Your task to perform on an android device: change keyboard looks Image 0: 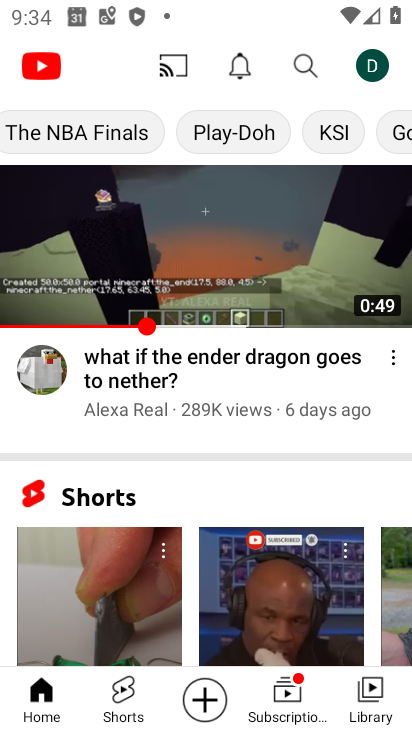
Step 0: press home button
Your task to perform on an android device: change keyboard looks Image 1: 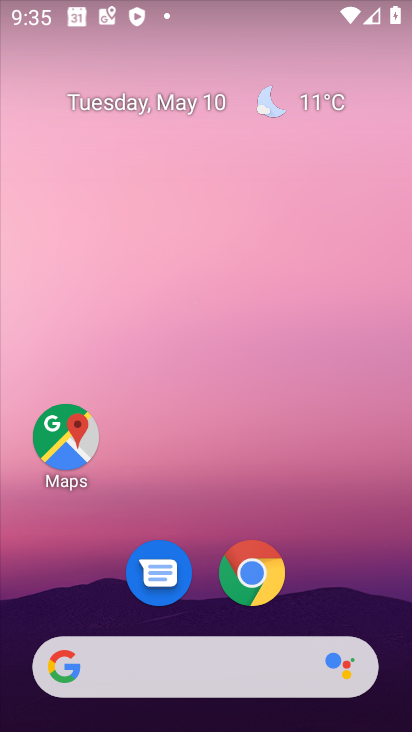
Step 1: drag from (349, 619) to (353, 1)
Your task to perform on an android device: change keyboard looks Image 2: 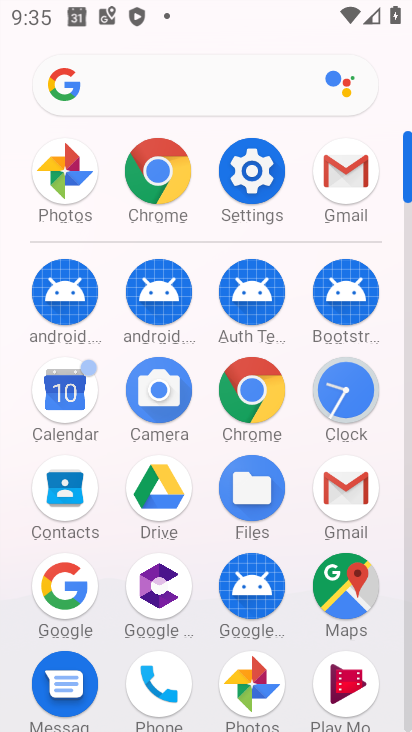
Step 2: click (247, 173)
Your task to perform on an android device: change keyboard looks Image 3: 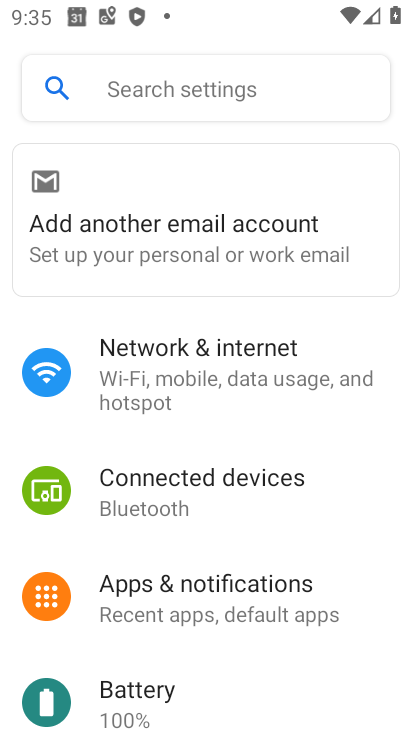
Step 3: drag from (317, 285) to (317, 204)
Your task to perform on an android device: change keyboard looks Image 4: 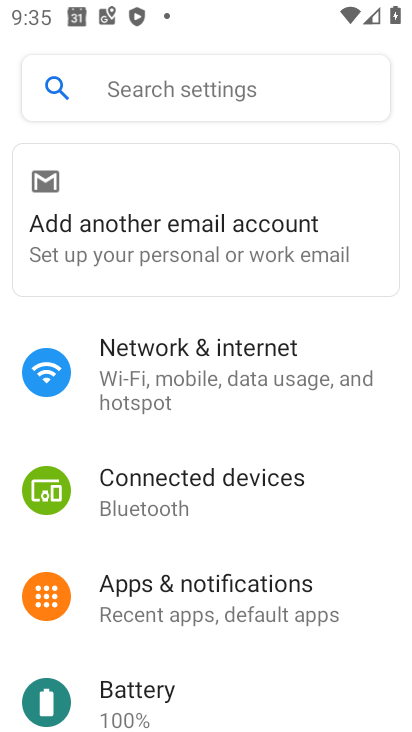
Step 4: drag from (325, 303) to (325, 154)
Your task to perform on an android device: change keyboard looks Image 5: 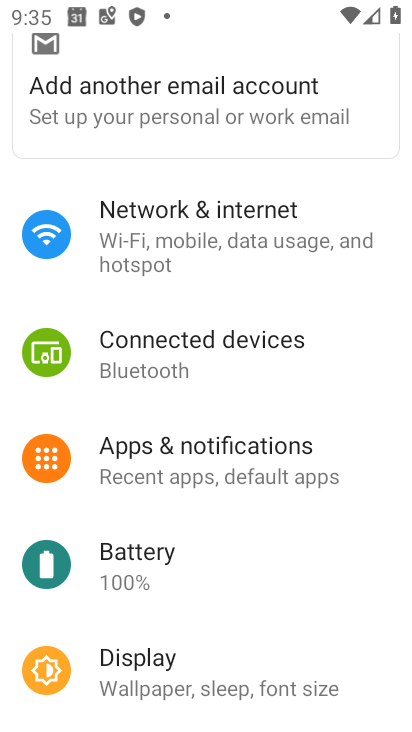
Step 5: drag from (305, 600) to (293, 196)
Your task to perform on an android device: change keyboard looks Image 6: 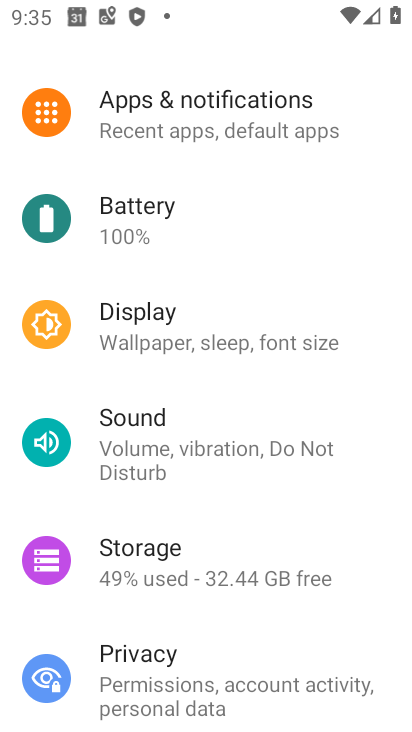
Step 6: drag from (269, 581) to (269, 156)
Your task to perform on an android device: change keyboard looks Image 7: 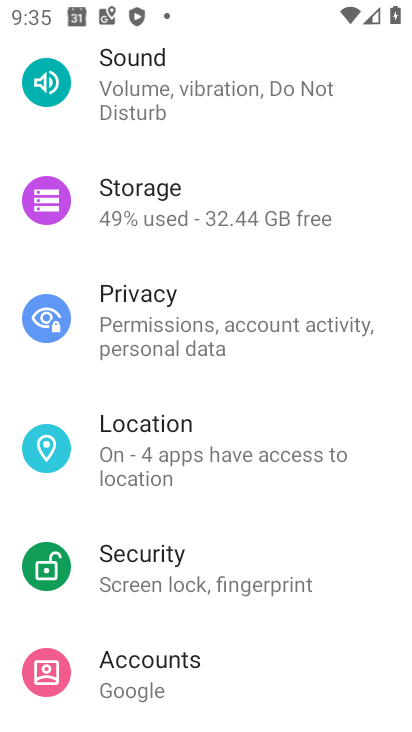
Step 7: drag from (280, 542) to (263, 175)
Your task to perform on an android device: change keyboard looks Image 8: 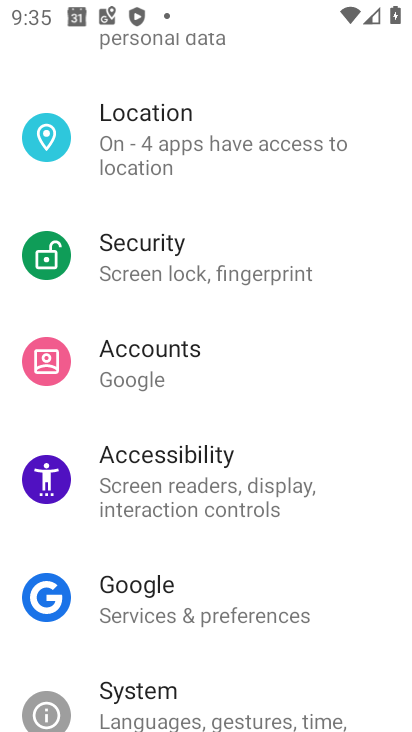
Step 8: drag from (274, 579) to (267, 112)
Your task to perform on an android device: change keyboard looks Image 9: 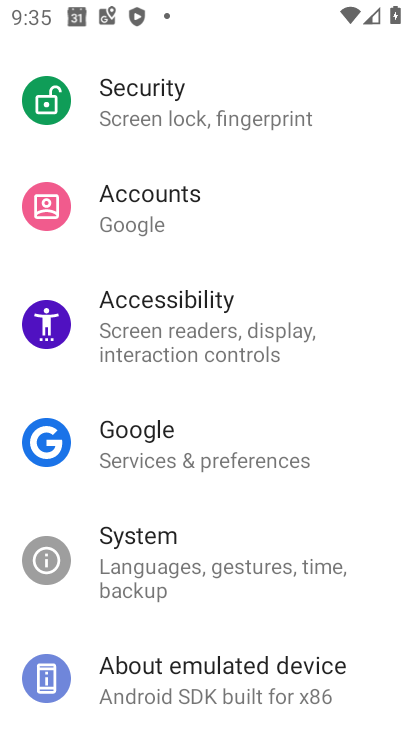
Step 9: click (166, 569)
Your task to perform on an android device: change keyboard looks Image 10: 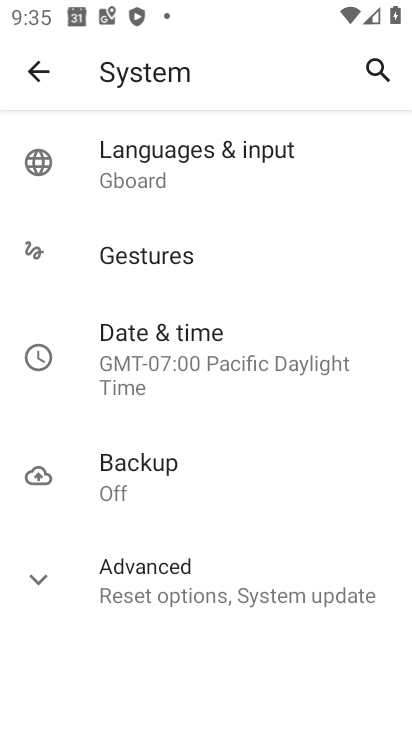
Step 10: click (130, 175)
Your task to perform on an android device: change keyboard looks Image 11: 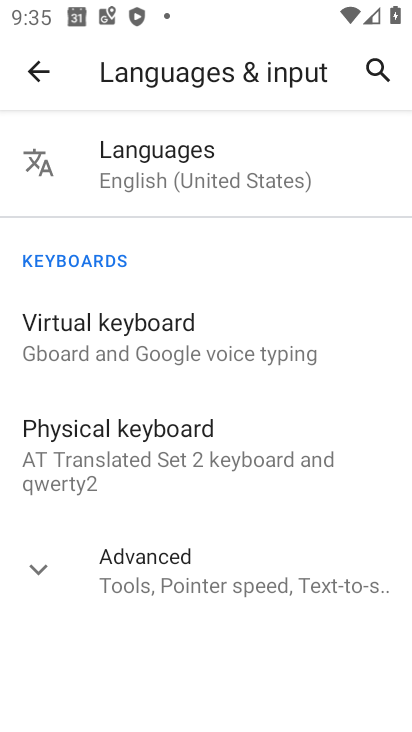
Step 11: click (101, 338)
Your task to perform on an android device: change keyboard looks Image 12: 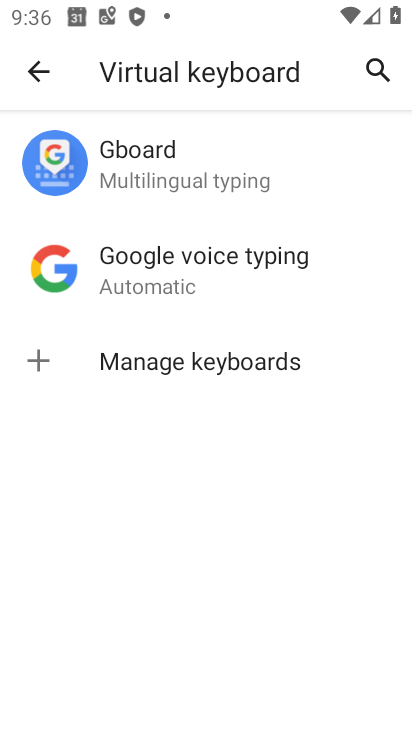
Step 12: click (143, 183)
Your task to perform on an android device: change keyboard looks Image 13: 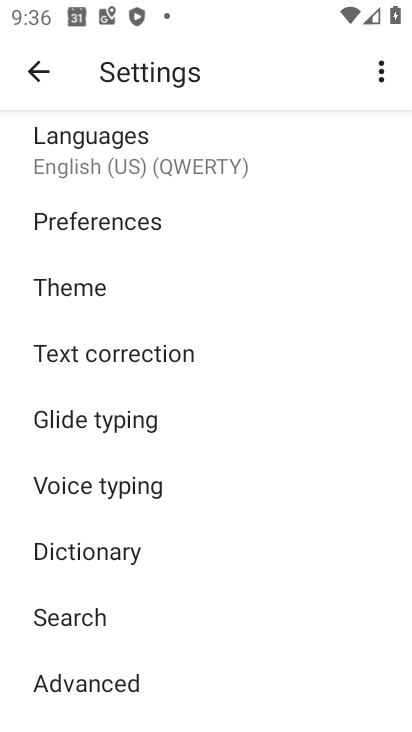
Step 13: click (105, 289)
Your task to perform on an android device: change keyboard looks Image 14: 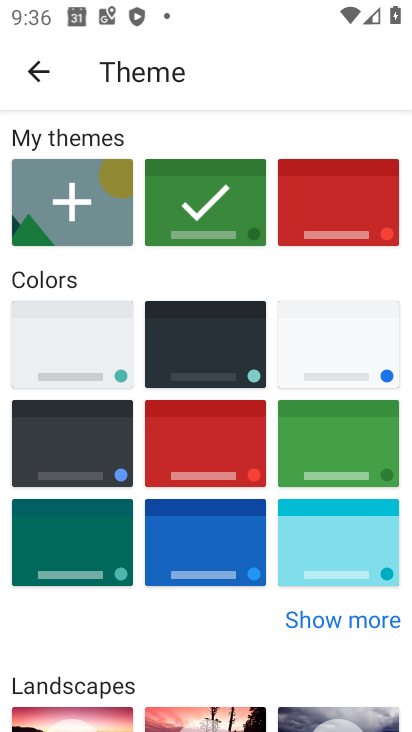
Step 14: click (194, 524)
Your task to perform on an android device: change keyboard looks Image 15: 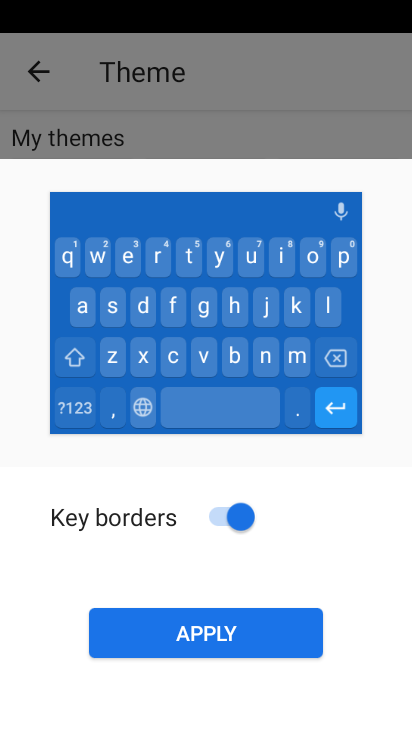
Step 15: click (220, 647)
Your task to perform on an android device: change keyboard looks Image 16: 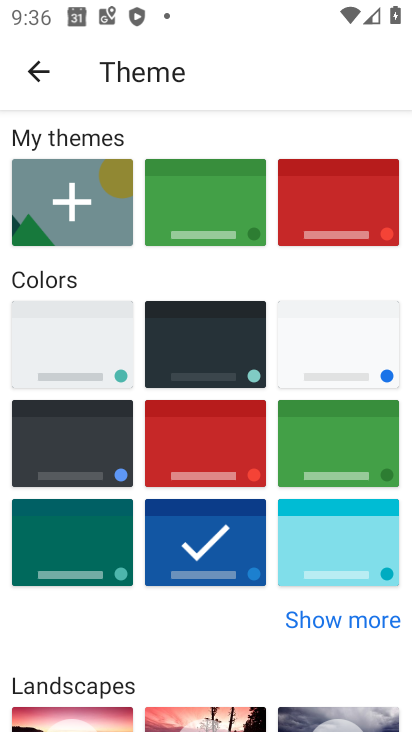
Step 16: task complete